Your task to perform on an android device: Do I have any events today? Image 0: 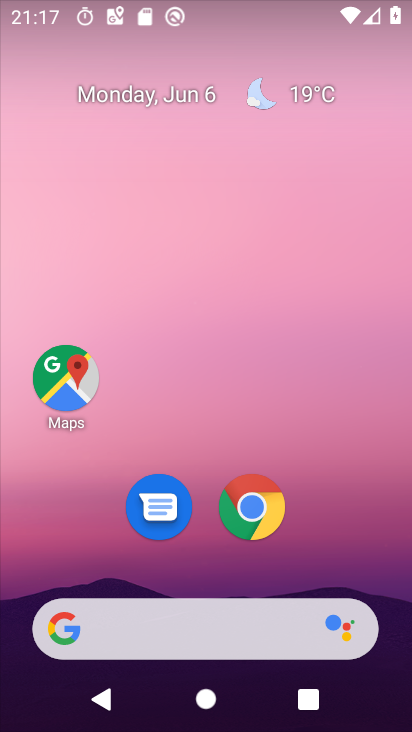
Step 0: press home button
Your task to perform on an android device: Do I have any events today? Image 1: 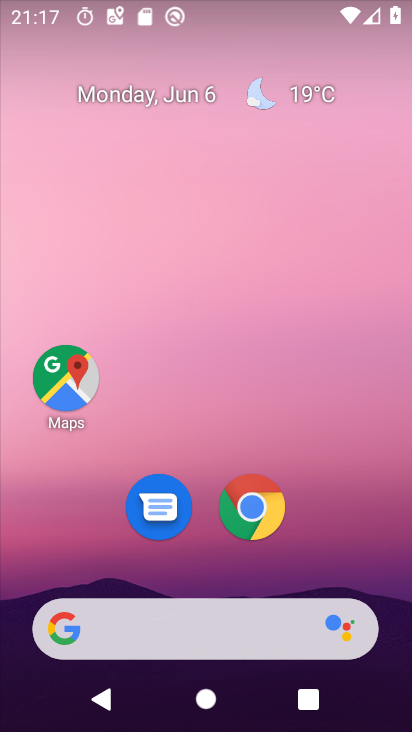
Step 1: drag from (339, 512) to (325, 4)
Your task to perform on an android device: Do I have any events today? Image 2: 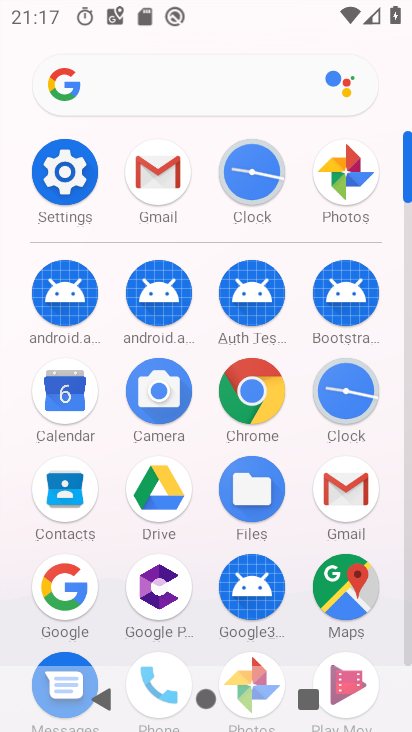
Step 2: click (87, 378)
Your task to perform on an android device: Do I have any events today? Image 3: 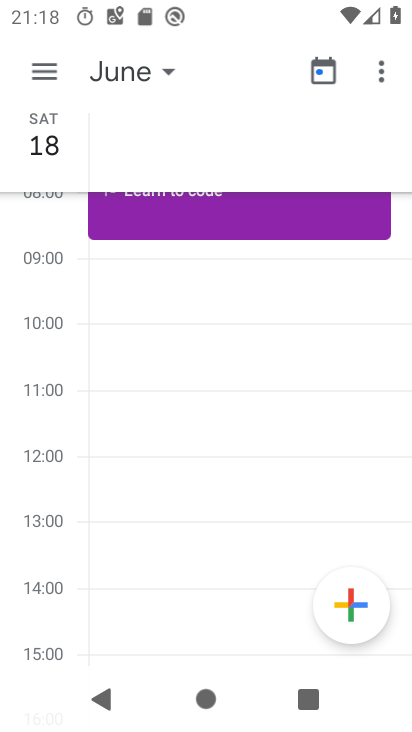
Step 3: click (139, 71)
Your task to perform on an android device: Do I have any events today? Image 4: 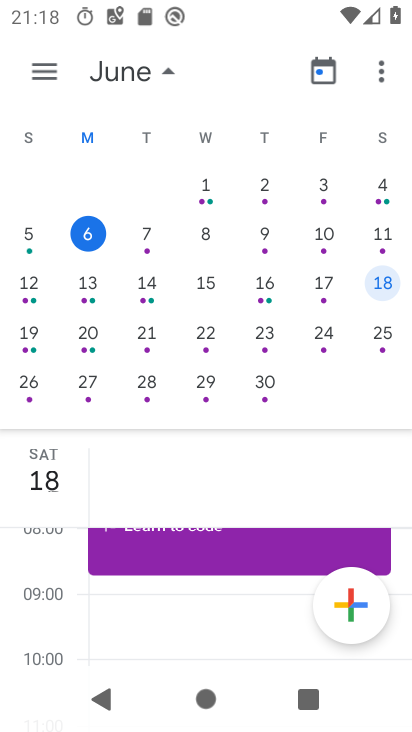
Step 4: click (130, 243)
Your task to perform on an android device: Do I have any events today? Image 5: 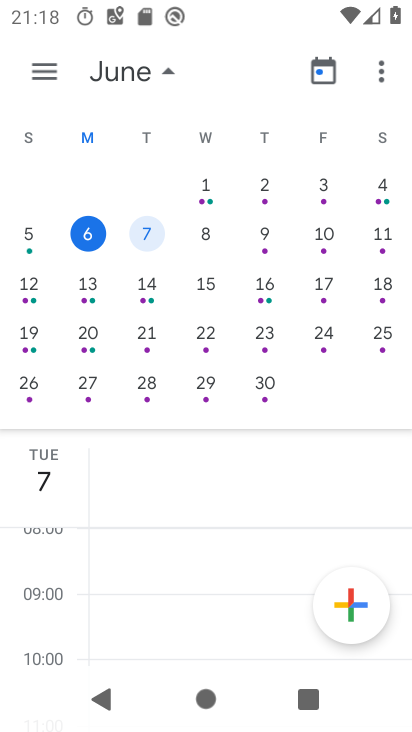
Step 5: click (159, 61)
Your task to perform on an android device: Do I have any events today? Image 6: 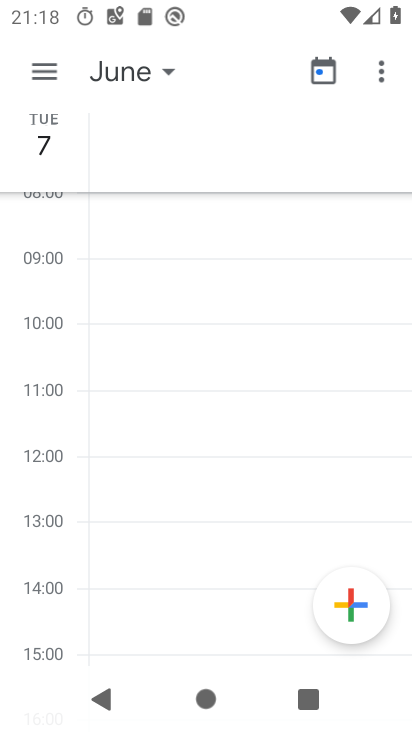
Step 6: click (57, 71)
Your task to perform on an android device: Do I have any events today? Image 7: 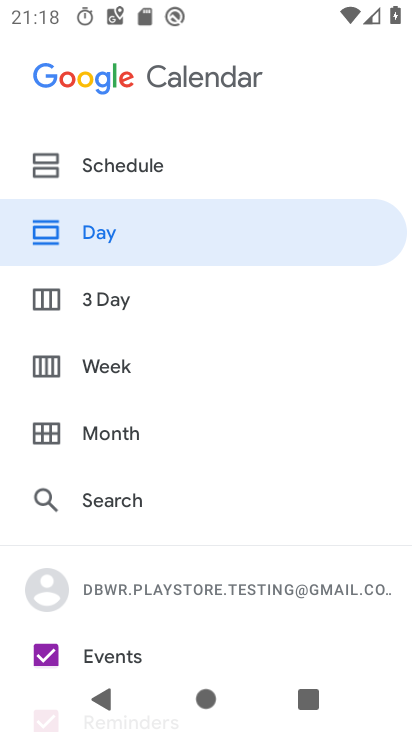
Step 7: click (94, 172)
Your task to perform on an android device: Do I have any events today? Image 8: 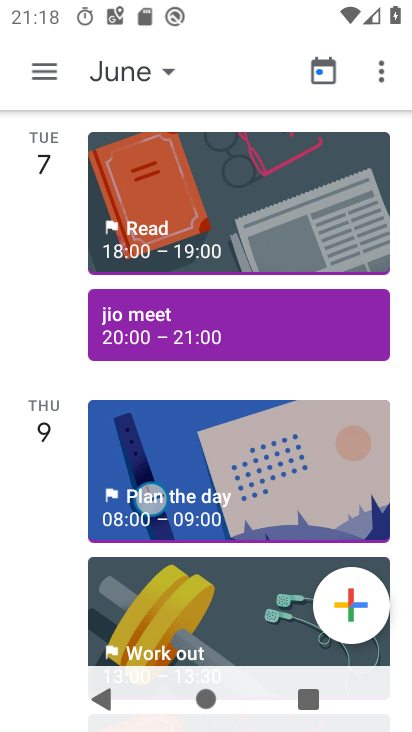
Step 8: task complete